Your task to perform on an android device: turn off improve location accuracy Image 0: 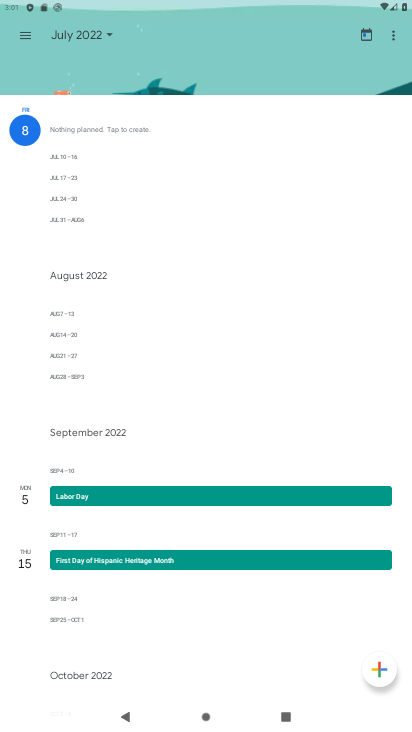
Step 0: drag from (181, 531) to (190, 336)
Your task to perform on an android device: turn off improve location accuracy Image 1: 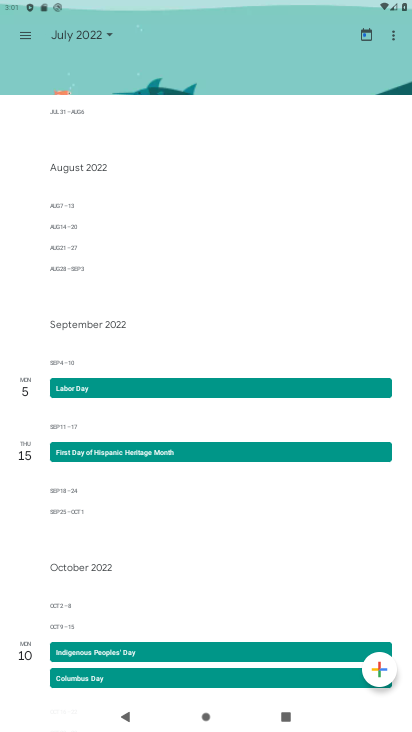
Step 1: drag from (176, 626) to (235, 217)
Your task to perform on an android device: turn off improve location accuracy Image 2: 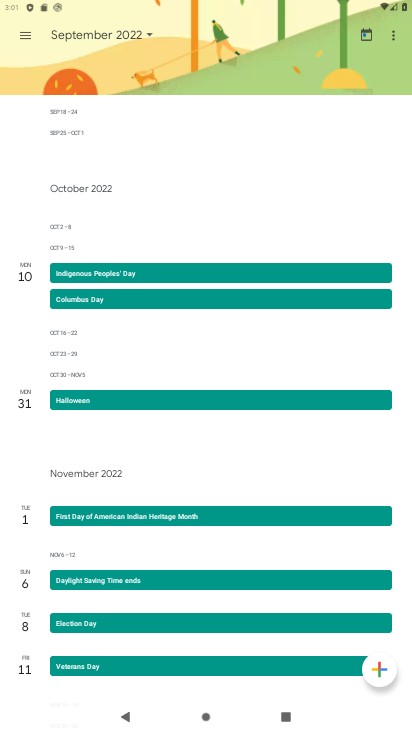
Step 2: press home button
Your task to perform on an android device: turn off improve location accuracy Image 3: 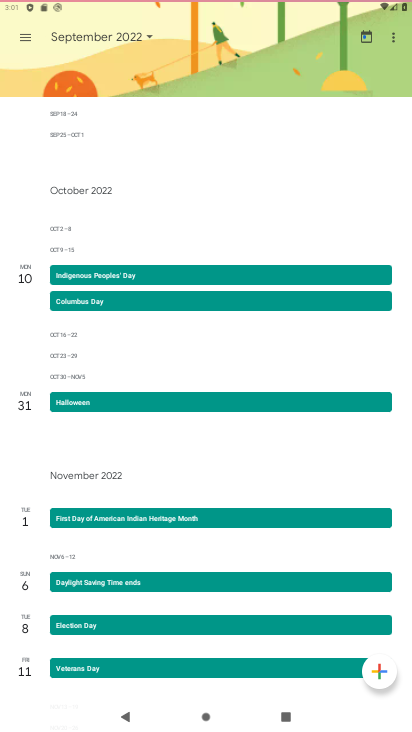
Step 3: drag from (216, 552) to (333, 28)
Your task to perform on an android device: turn off improve location accuracy Image 4: 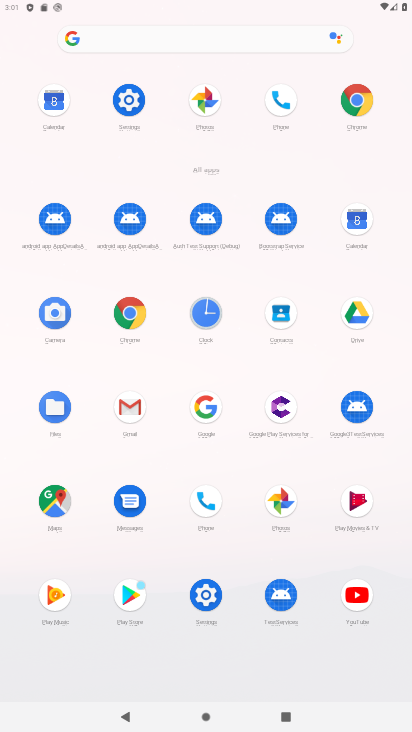
Step 4: drag from (260, 517) to (307, 184)
Your task to perform on an android device: turn off improve location accuracy Image 5: 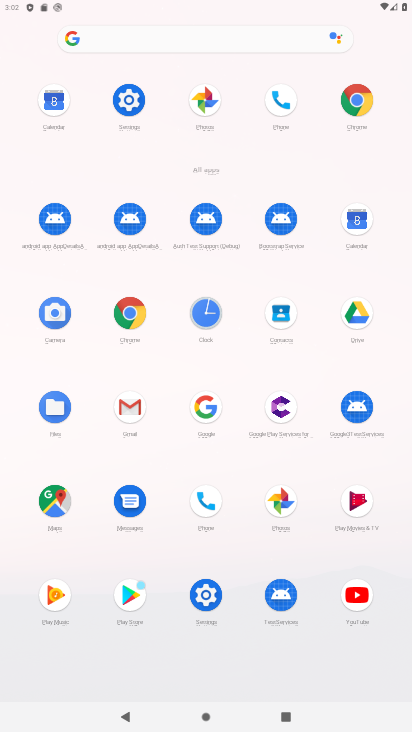
Step 5: click (123, 84)
Your task to perform on an android device: turn off improve location accuracy Image 6: 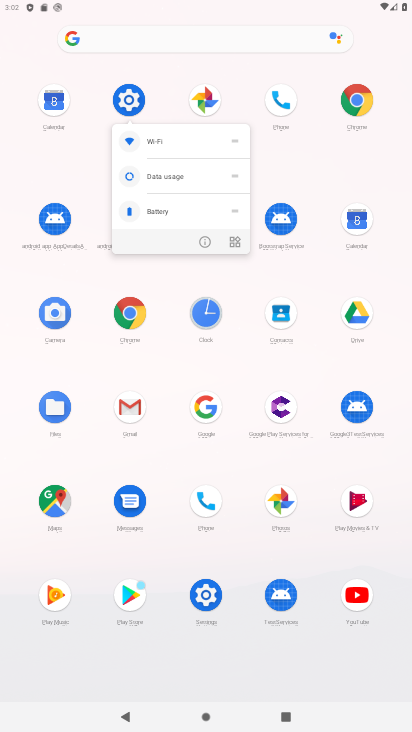
Step 6: click (202, 243)
Your task to perform on an android device: turn off improve location accuracy Image 7: 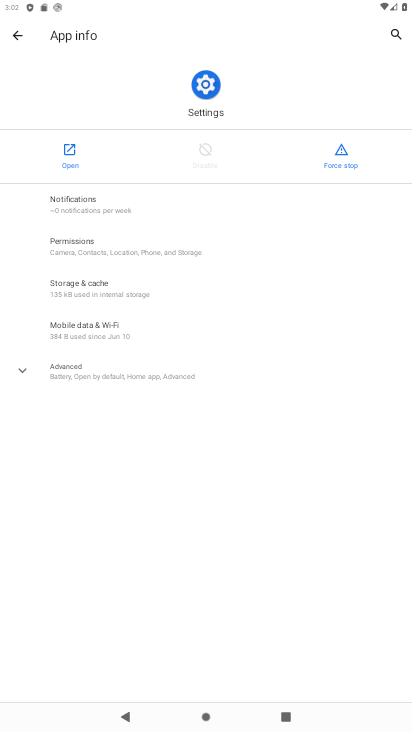
Step 7: click (71, 151)
Your task to perform on an android device: turn off improve location accuracy Image 8: 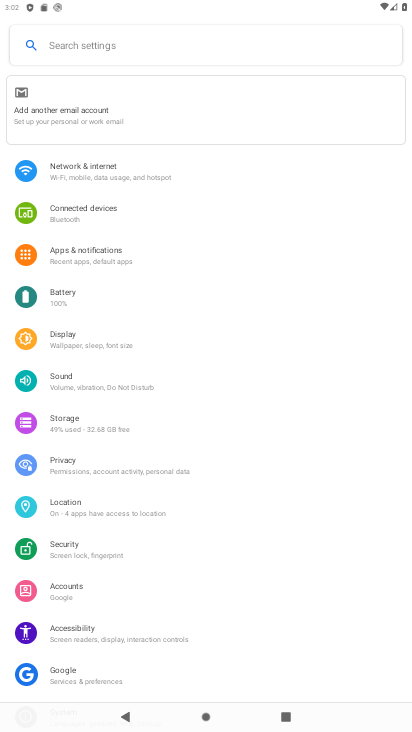
Step 8: click (99, 509)
Your task to perform on an android device: turn off improve location accuracy Image 9: 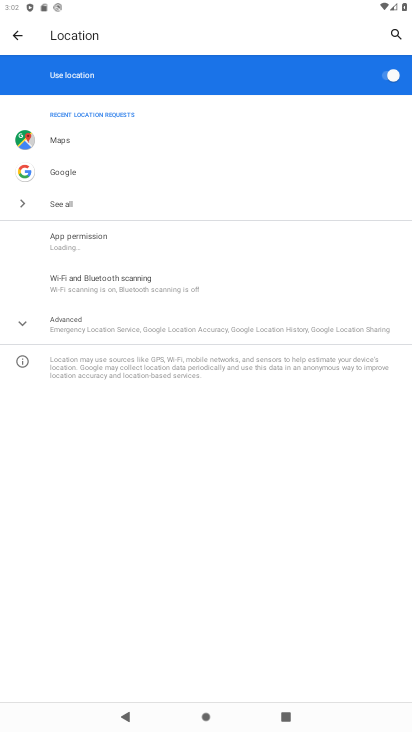
Step 9: click (93, 316)
Your task to perform on an android device: turn off improve location accuracy Image 10: 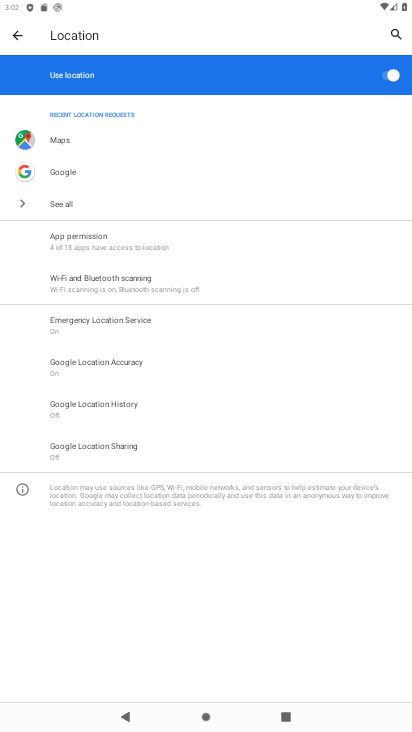
Step 10: click (131, 373)
Your task to perform on an android device: turn off improve location accuracy Image 11: 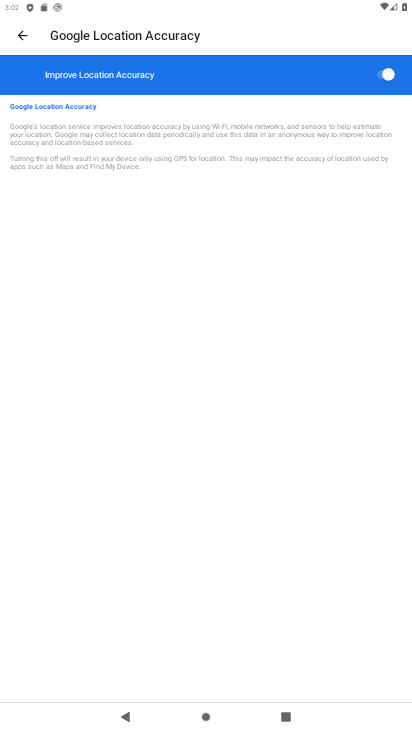
Step 11: click (383, 78)
Your task to perform on an android device: turn off improve location accuracy Image 12: 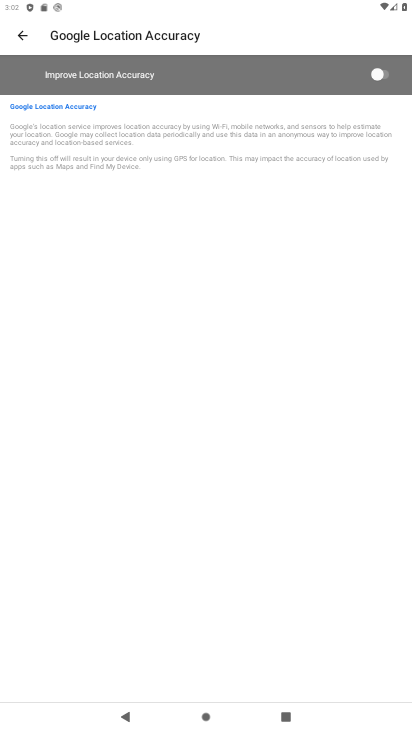
Step 12: task complete